Your task to perform on an android device: Open Google Maps Image 0: 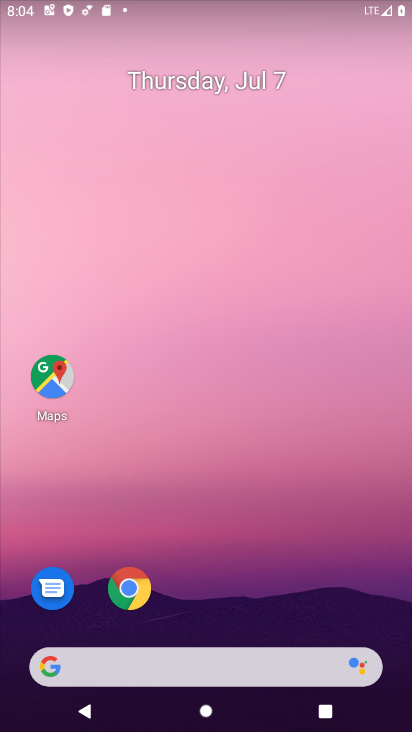
Step 0: drag from (266, 620) to (245, 251)
Your task to perform on an android device: Open Google Maps Image 1: 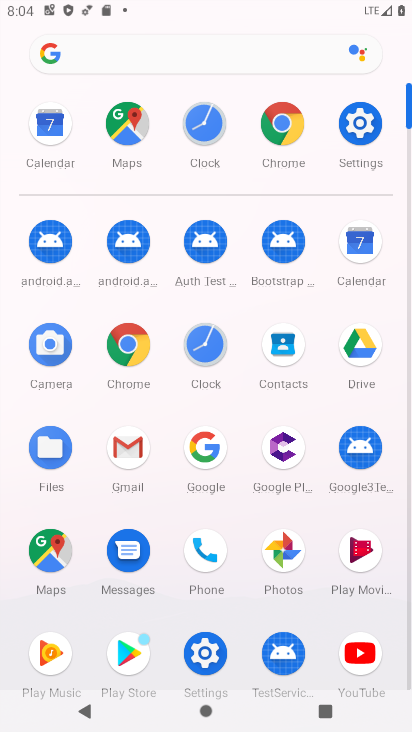
Step 1: click (41, 527)
Your task to perform on an android device: Open Google Maps Image 2: 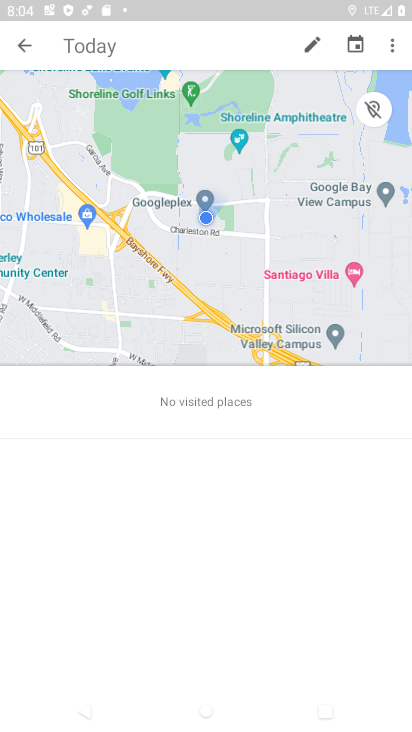
Step 2: click (8, 43)
Your task to perform on an android device: Open Google Maps Image 3: 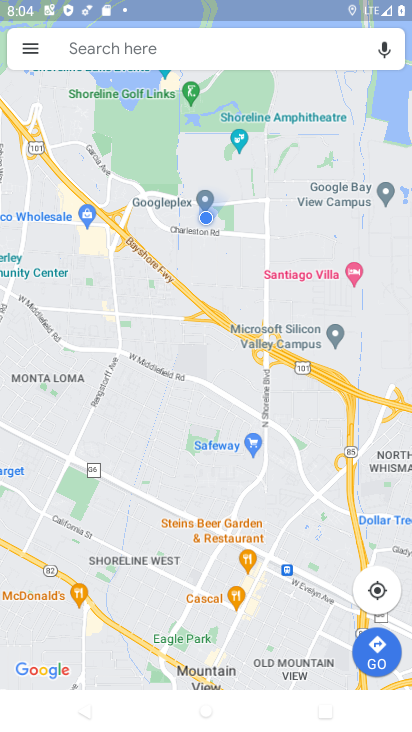
Step 3: task complete